Your task to perform on an android device: toggle data saver in the chrome app Image 0: 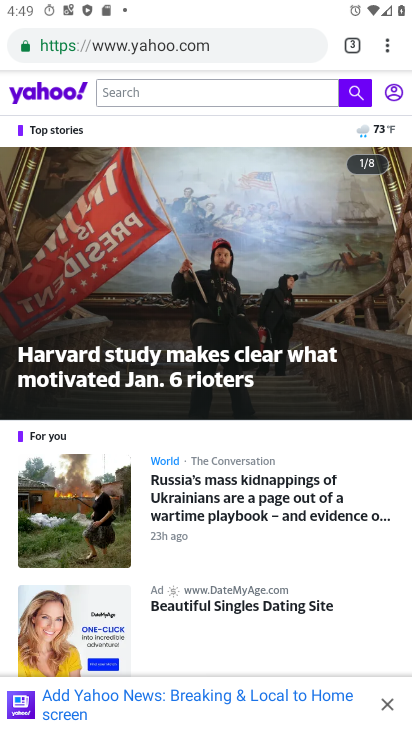
Step 0: press home button
Your task to perform on an android device: toggle data saver in the chrome app Image 1: 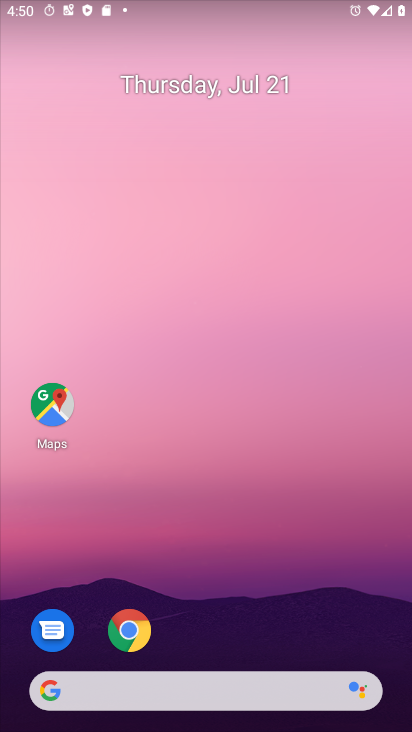
Step 1: click (128, 631)
Your task to perform on an android device: toggle data saver in the chrome app Image 2: 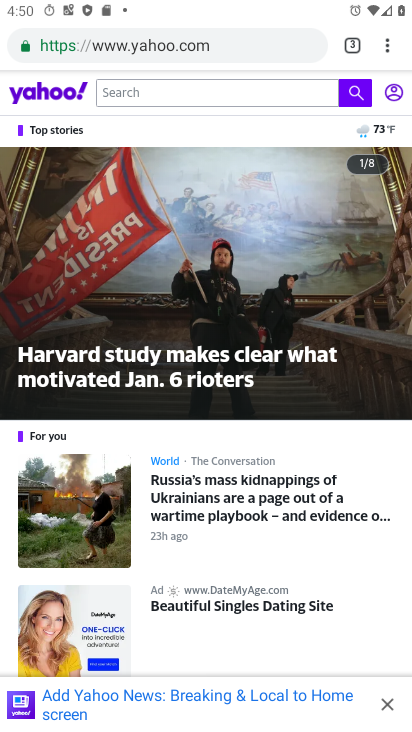
Step 2: click (388, 44)
Your task to perform on an android device: toggle data saver in the chrome app Image 3: 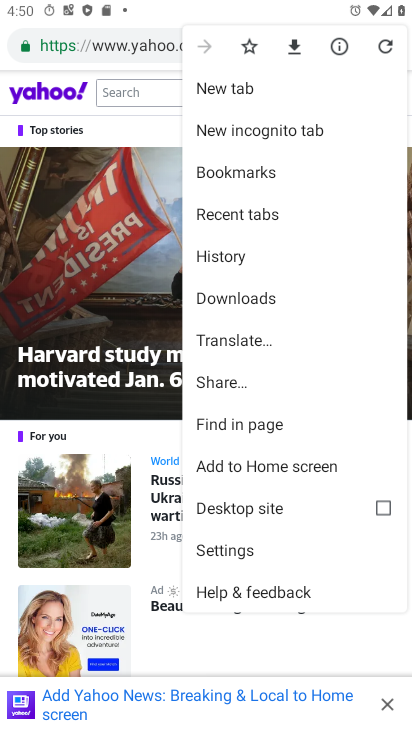
Step 3: click (244, 550)
Your task to perform on an android device: toggle data saver in the chrome app Image 4: 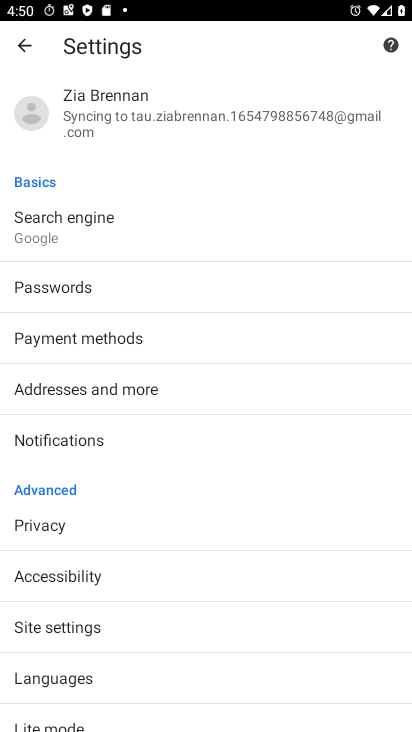
Step 4: click (60, 725)
Your task to perform on an android device: toggle data saver in the chrome app Image 5: 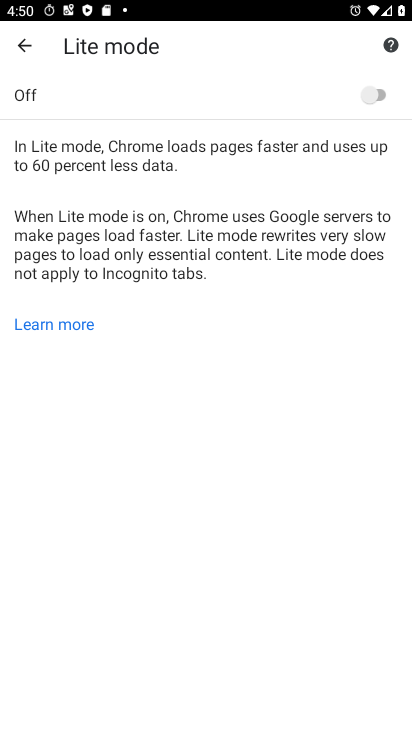
Step 5: click (371, 94)
Your task to perform on an android device: toggle data saver in the chrome app Image 6: 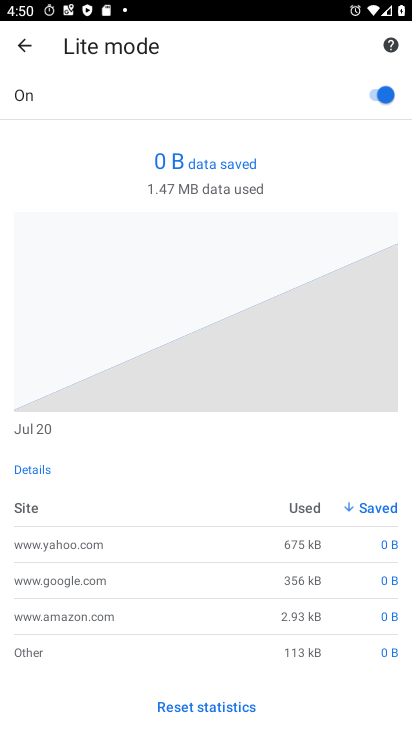
Step 6: task complete